Your task to perform on an android device: Open maps Image 0: 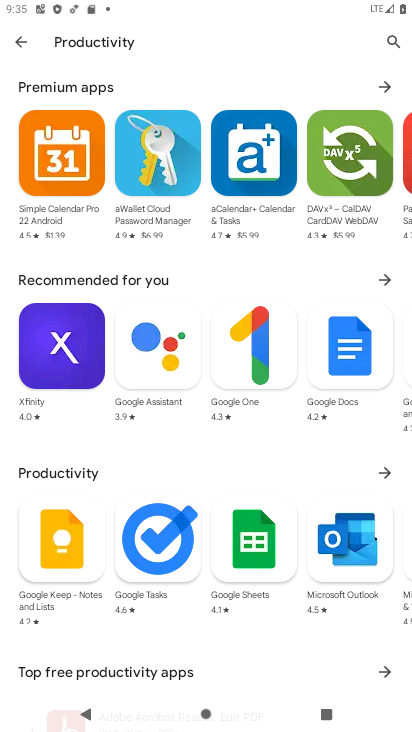
Step 0: press home button
Your task to perform on an android device: Open maps Image 1: 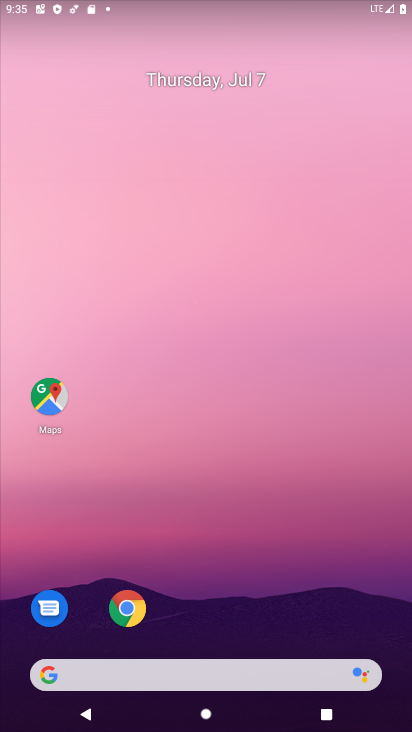
Step 1: click (51, 394)
Your task to perform on an android device: Open maps Image 2: 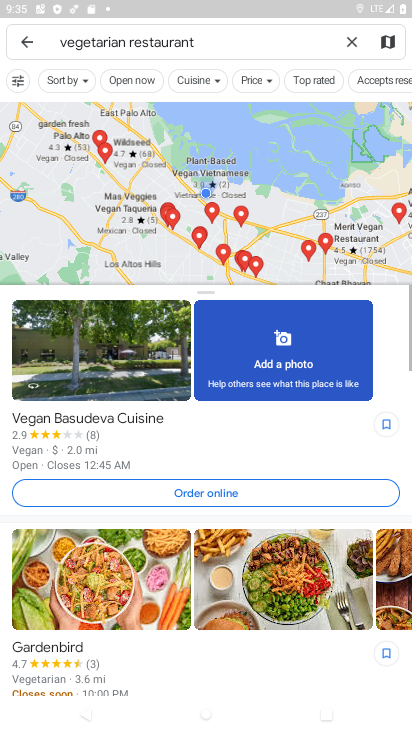
Step 2: task complete